Your task to perform on an android device: Go to location settings Image 0: 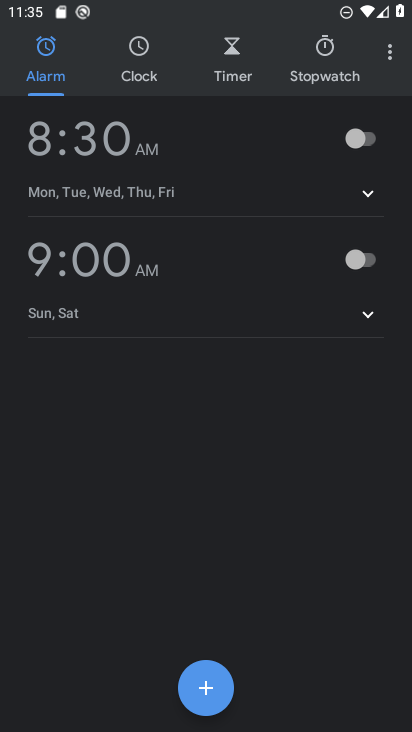
Step 0: press home button
Your task to perform on an android device: Go to location settings Image 1: 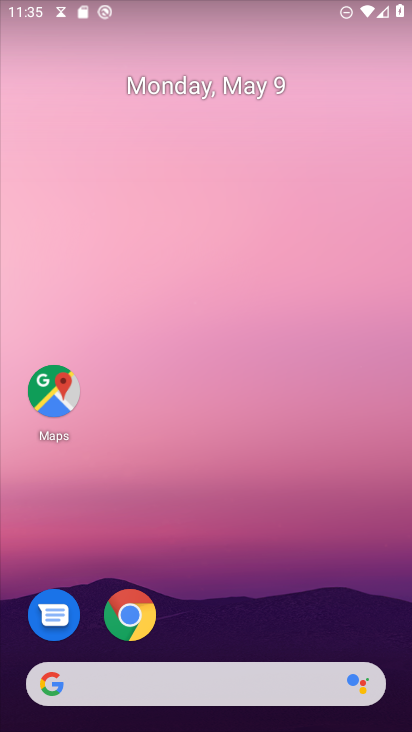
Step 1: drag from (209, 725) to (205, 213)
Your task to perform on an android device: Go to location settings Image 2: 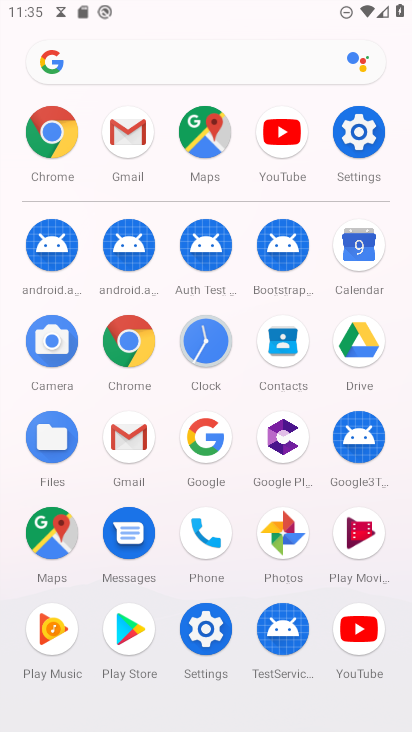
Step 2: click (202, 630)
Your task to perform on an android device: Go to location settings Image 3: 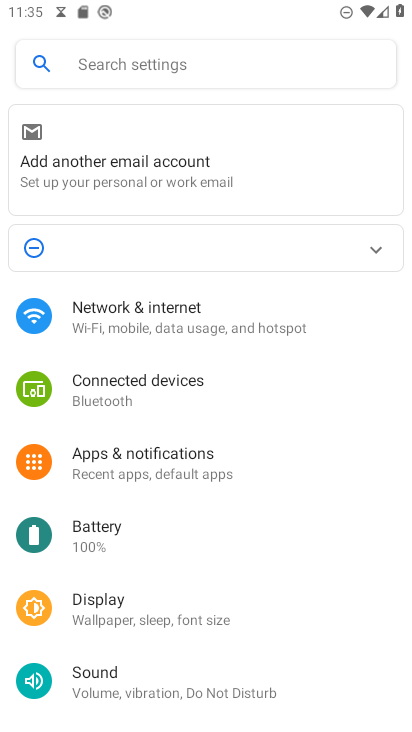
Step 3: drag from (143, 674) to (140, 337)
Your task to perform on an android device: Go to location settings Image 4: 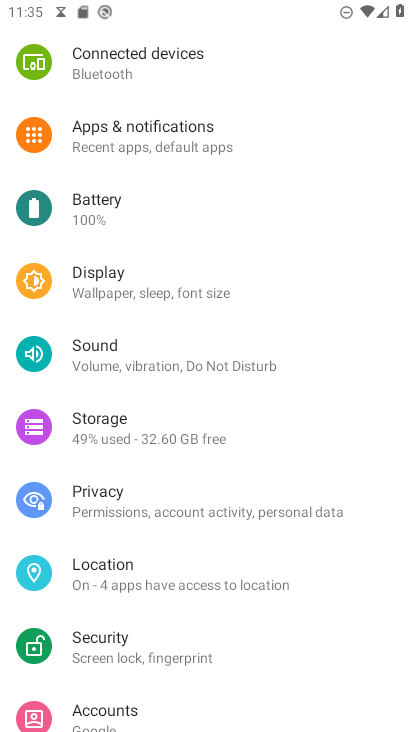
Step 4: click (118, 568)
Your task to perform on an android device: Go to location settings Image 5: 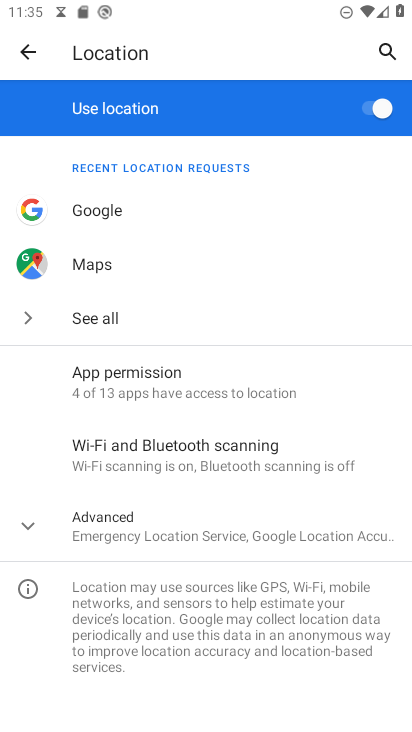
Step 5: task complete